Your task to perform on an android device: turn pop-ups off in chrome Image 0: 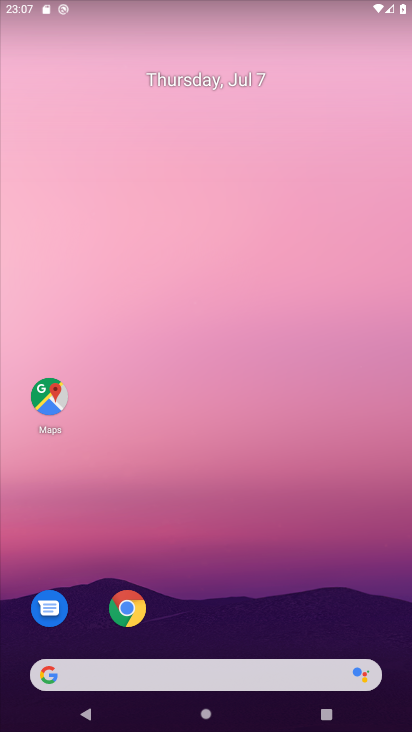
Step 0: drag from (206, 630) to (208, 138)
Your task to perform on an android device: turn pop-ups off in chrome Image 1: 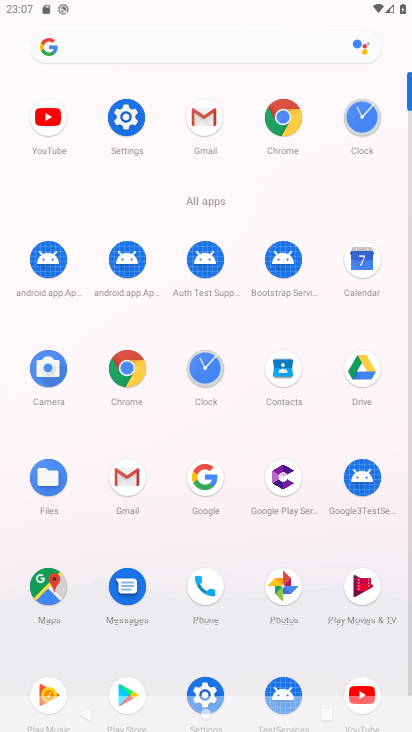
Step 1: click (120, 371)
Your task to perform on an android device: turn pop-ups off in chrome Image 2: 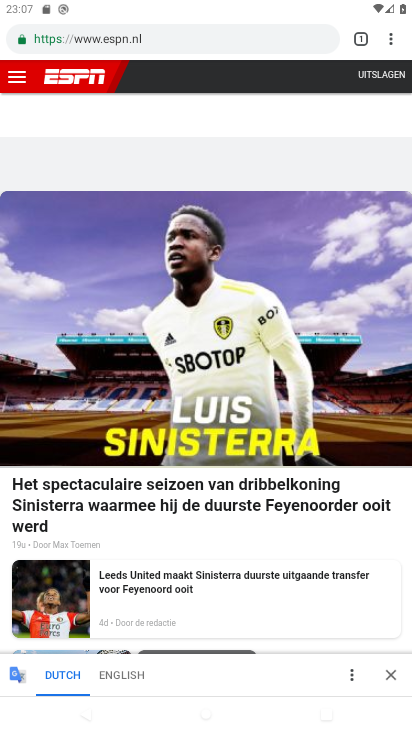
Step 2: click (392, 34)
Your task to perform on an android device: turn pop-ups off in chrome Image 3: 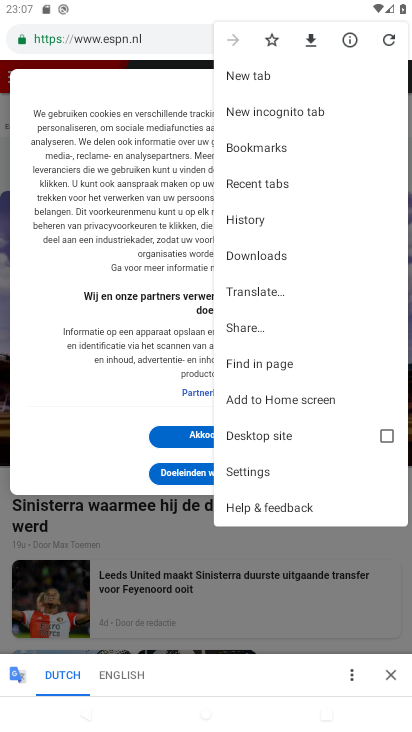
Step 3: click (281, 466)
Your task to perform on an android device: turn pop-ups off in chrome Image 4: 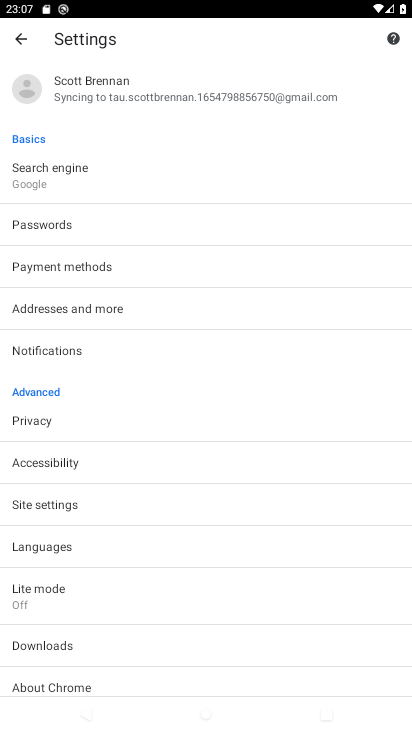
Step 4: click (87, 506)
Your task to perform on an android device: turn pop-ups off in chrome Image 5: 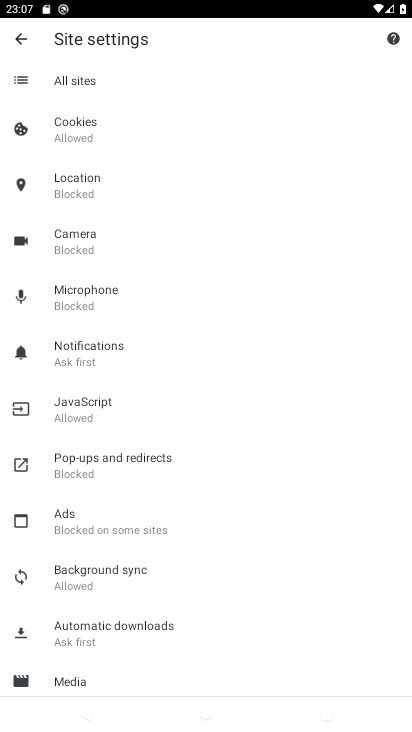
Step 5: click (139, 455)
Your task to perform on an android device: turn pop-ups off in chrome Image 6: 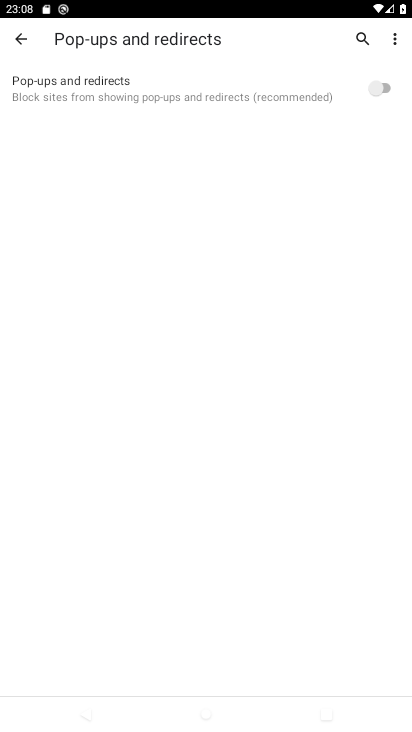
Step 6: task complete